Your task to perform on an android device: snooze an email in the gmail app Image 0: 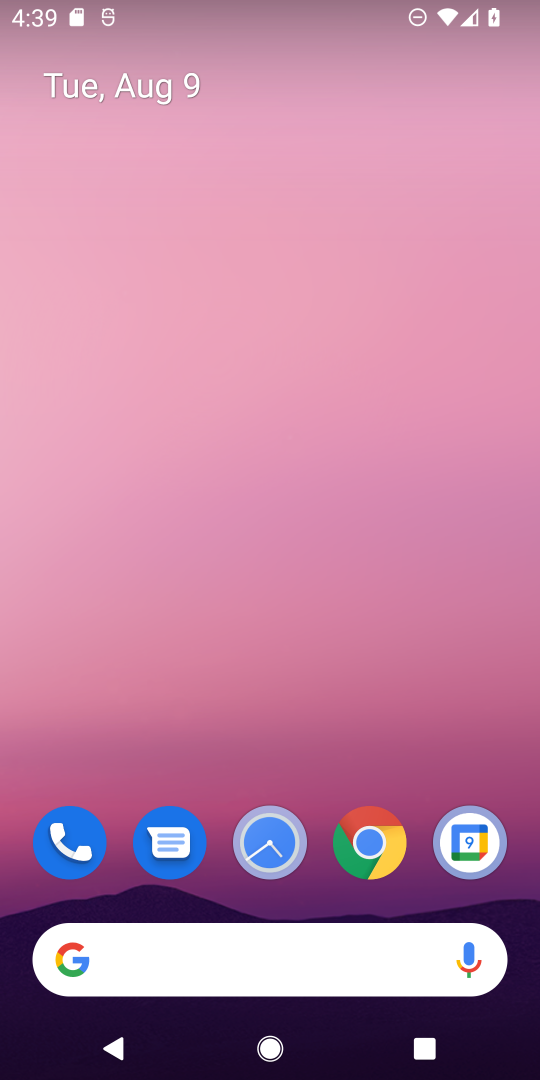
Step 0: drag from (414, 935) to (382, 267)
Your task to perform on an android device: snooze an email in the gmail app Image 1: 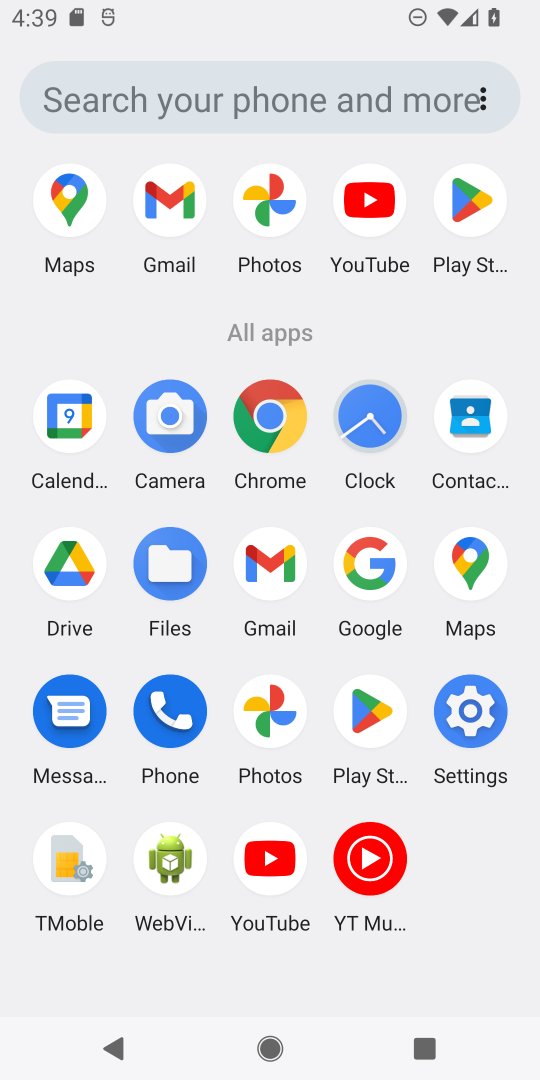
Step 1: click (281, 556)
Your task to perform on an android device: snooze an email in the gmail app Image 2: 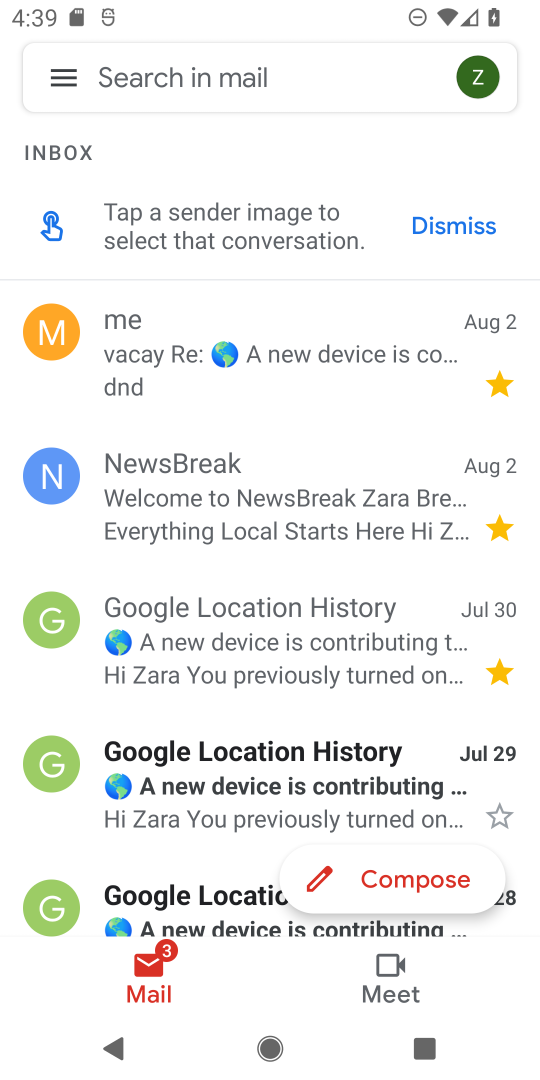
Step 2: click (338, 517)
Your task to perform on an android device: snooze an email in the gmail app Image 3: 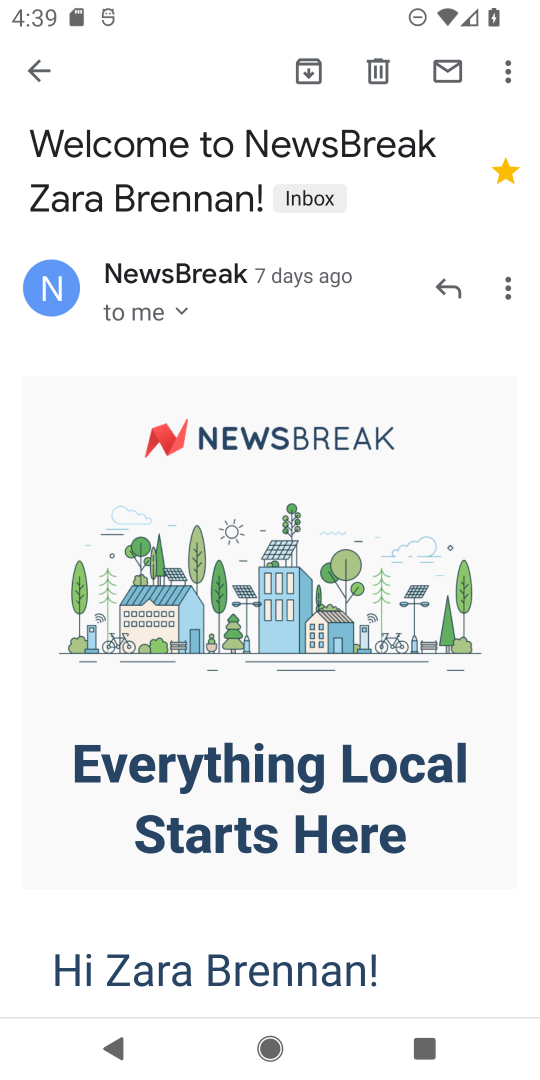
Step 3: click (509, 73)
Your task to perform on an android device: snooze an email in the gmail app Image 4: 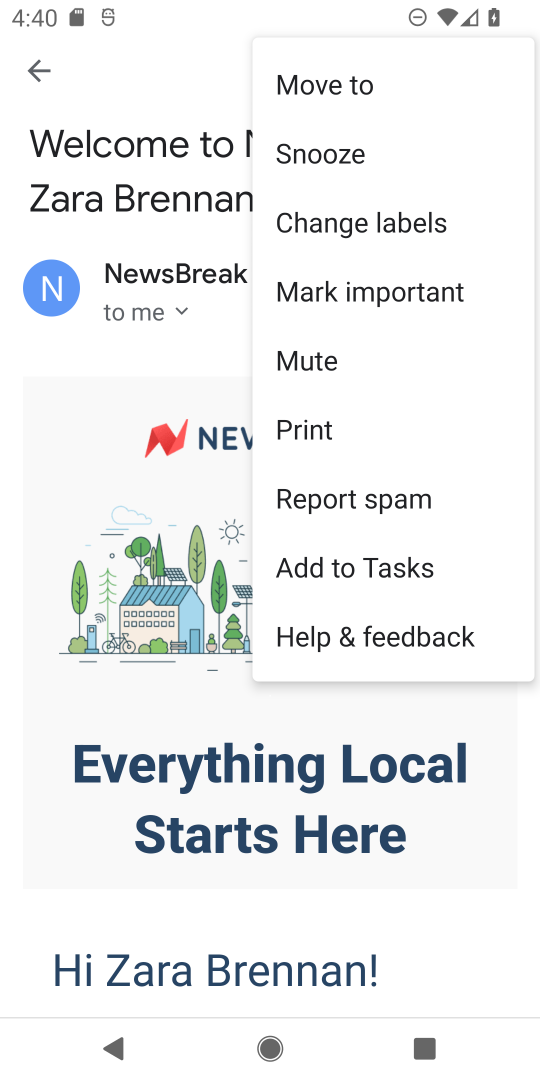
Step 4: click (334, 156)
Your task to perform on an android device: snooze an email in the gmail app Image 5: 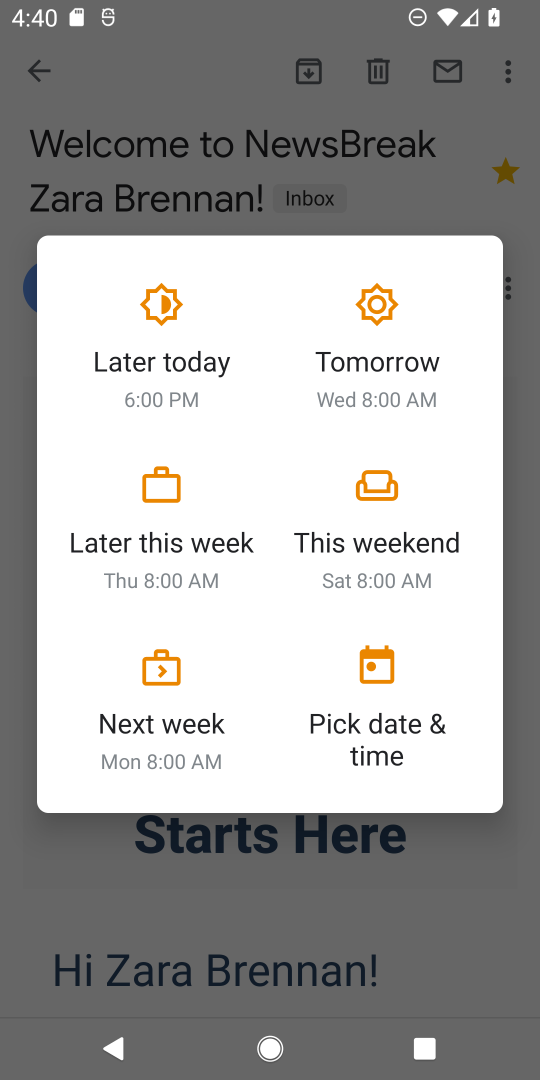
Step 5: click (365, 323)
Your task to perform on an android device: snooze an email in the gmail app Image 6: 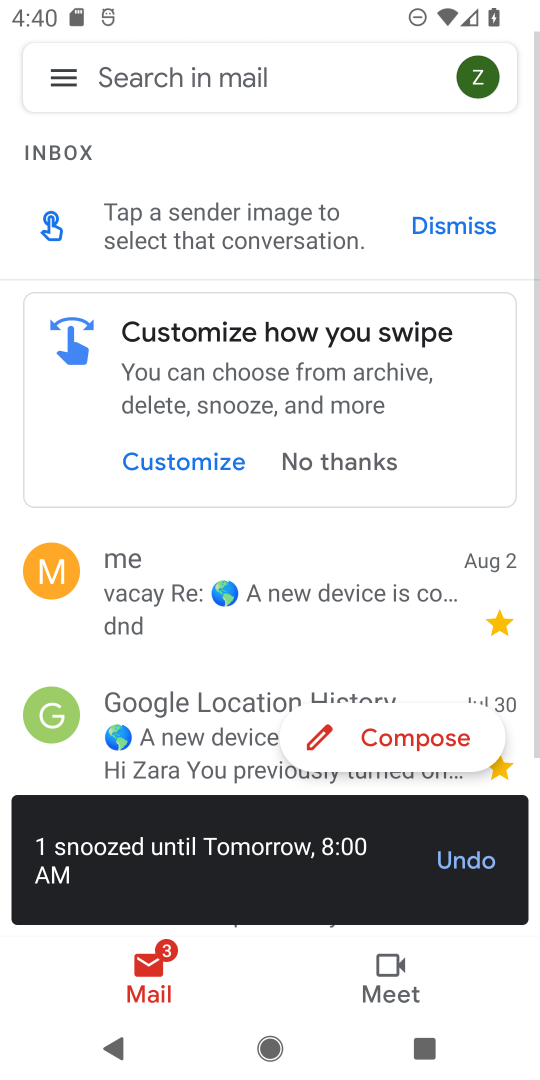
Step 6: task complete